Your task to perform on an android device: Open notification settings Image 0: 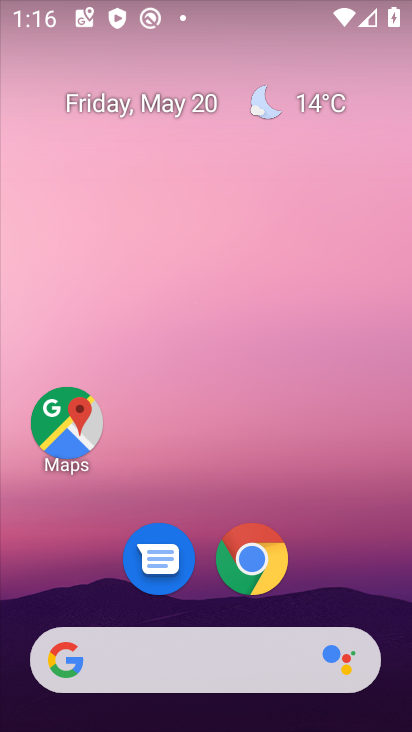
Step 0: drag from (335, 581) to (358, 1)
Your task to perform on an android device: Open notification settings Image 1: 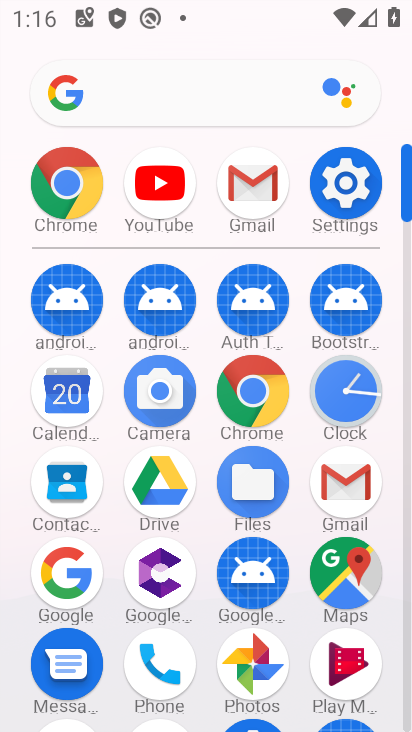
Step 1: click (352, 259)
Your task to perform on an android device: Open notification settings Image 2: 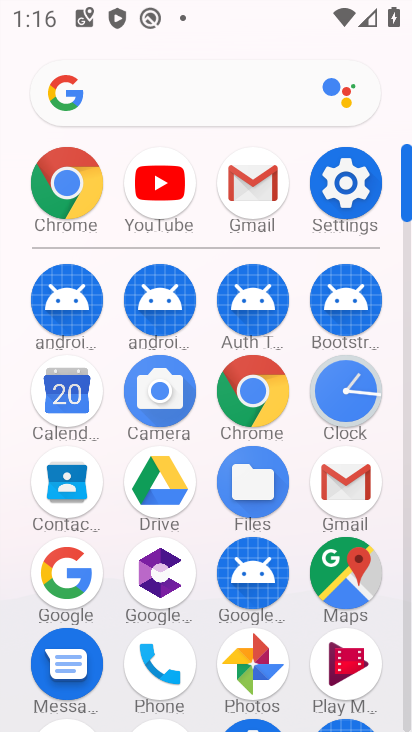
Step 2: click (341, 213)
Your task to perform on an android device: Open notification settings Image 3: 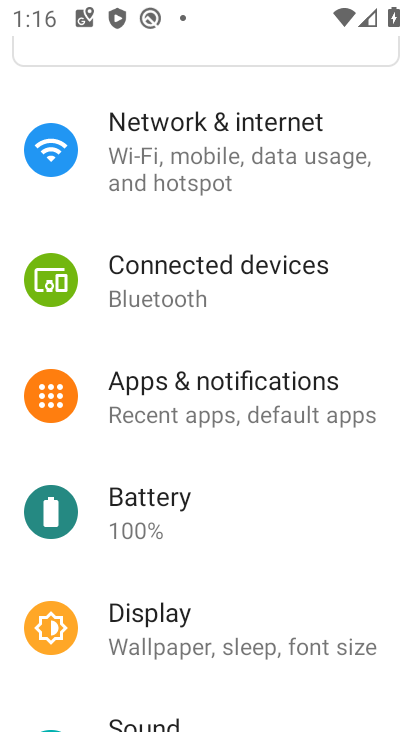
Step 3: click (252, 407)
Your task to perform on an android device: Open notification settings Image 4: 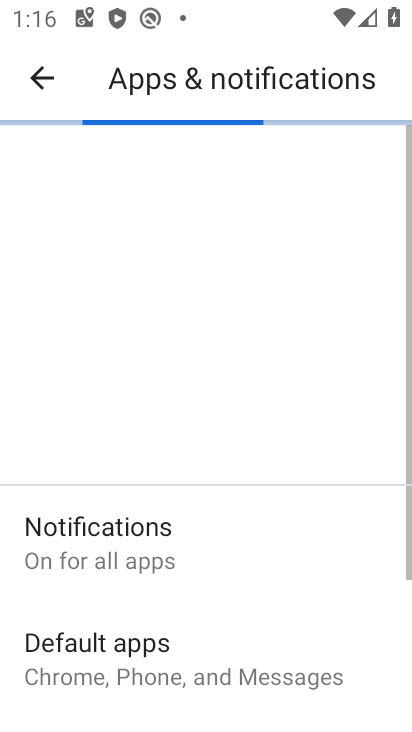
Step 4: task complete